Your task to perform on an android device: open a new tab in the chrome app Image 0: 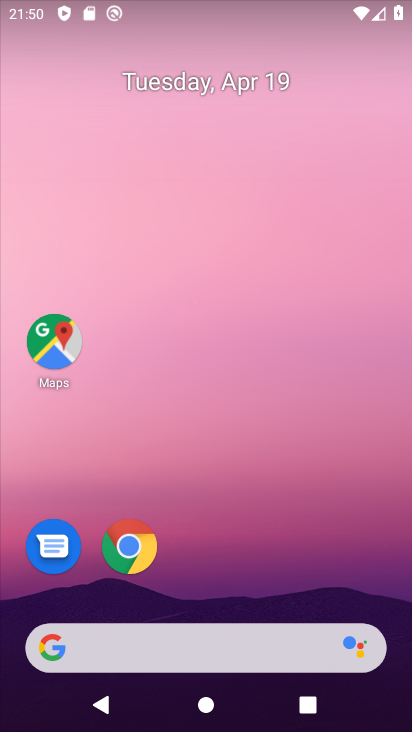
Step 0: drag from (240, 606) to (221, 1)
Your task to perform on an android device: open a new tab in the chrome app Image 1: 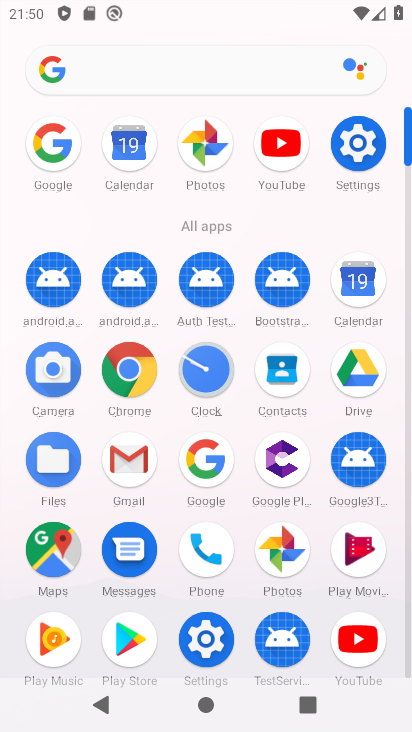
Step 1: click (125, 370)
Your task to perform on an android device: open a new tab in the chrome app Image 2: 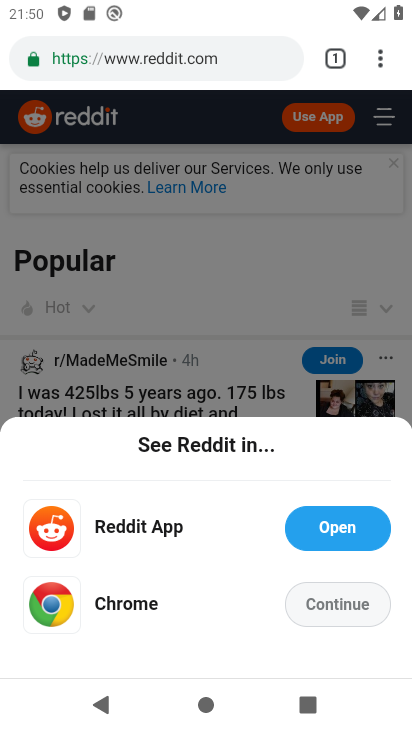
Step 2: click (321, 600)
Your task to perform on an android device: open a new tab in the chrome app Image 3: 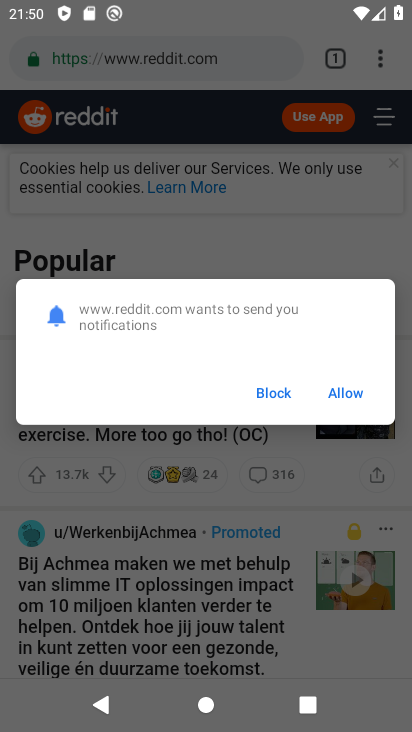
Step 3: click (355, 399)
Your task to perform on an android device: open a new tab in the chrome app Image 4: 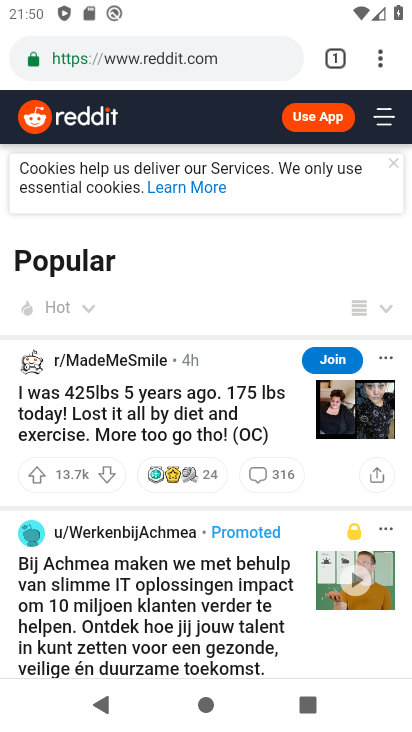
Step 4: click (331, 43)
Your task to perform on an android device: open a new tab in the chrome app Image 5: 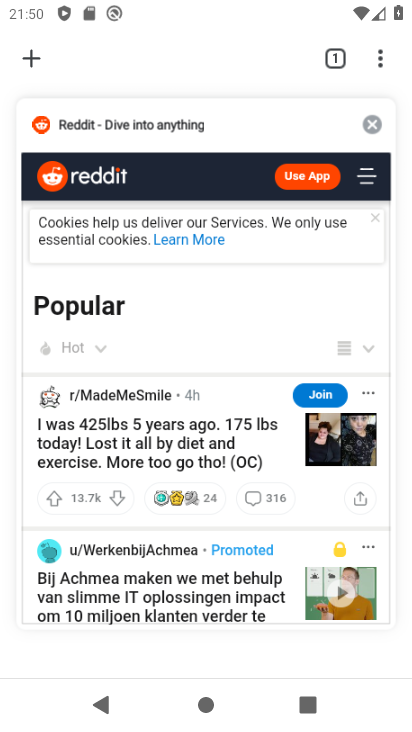
Step 5: click (29, 43)
Your task to perform on an android device: open a new tab in the chrome app Image 6: 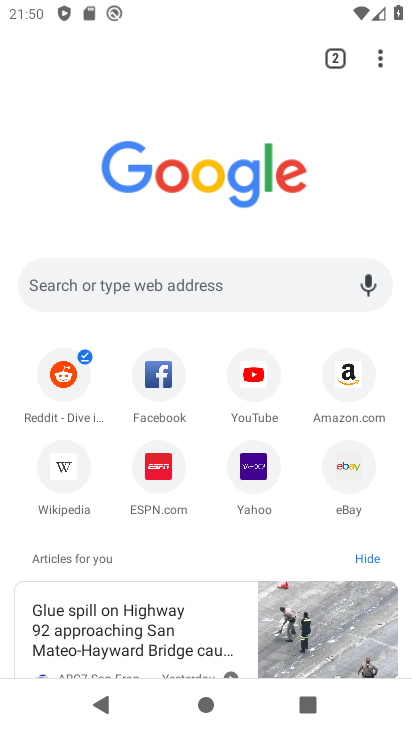
Step 6: task complete